Your task to perform on an android device: open wifi settings Image 0: 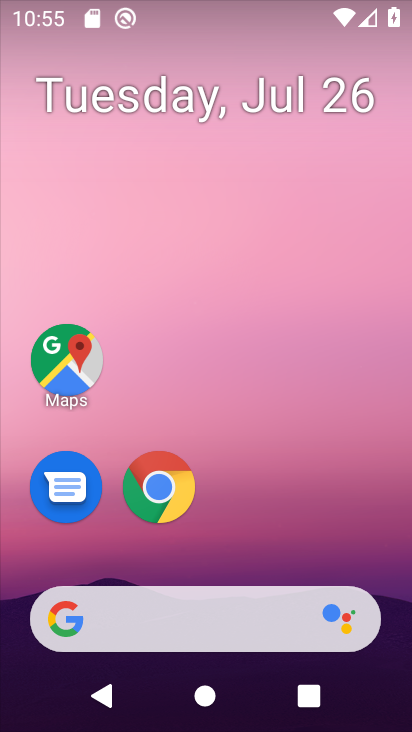
Step 0: drag from (191, 567) to (263, 4)
Your task to perform on an android device: open wifi settings Image 1: 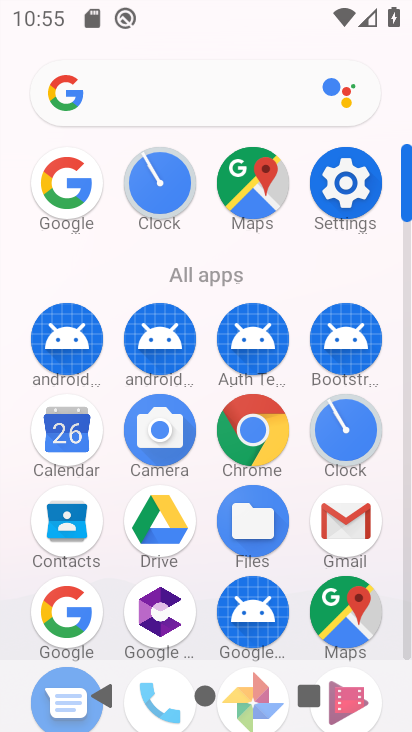
Step 1: click (152, 22)
Your task to perform on an android device: open wifi settings Image 2: 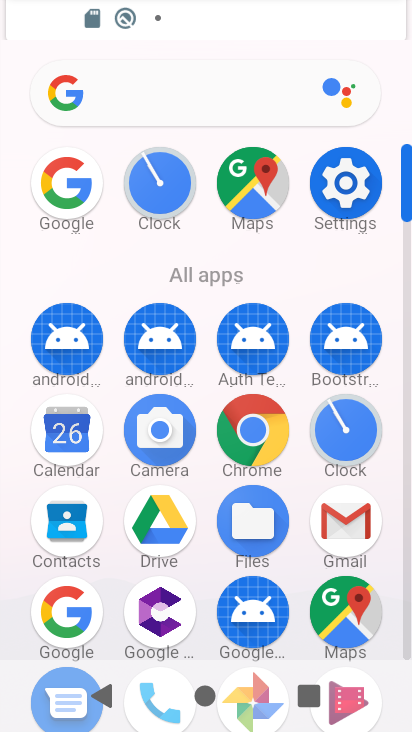
Step 2: drag from (152, 25) to (150, 446)
Your task to perform on an android device: open wifi settings Image 3: 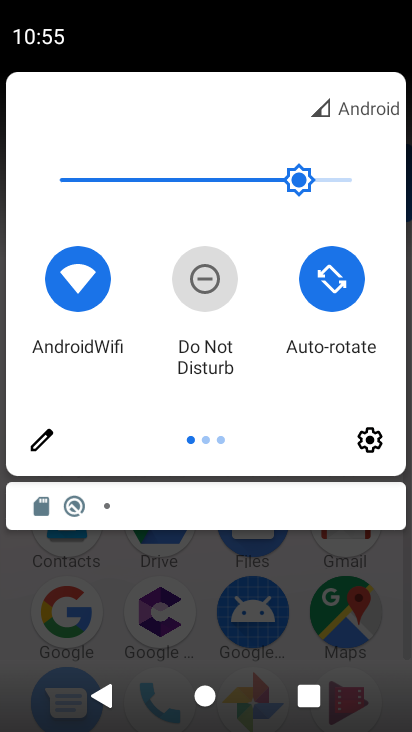
Step 3: click (70, 280)
Your task to perform on an android device: open wifi settings Image 4: 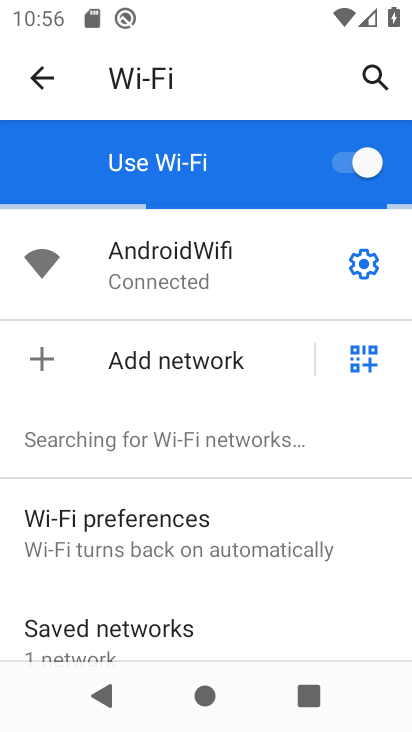
Step 4: task complete